Your task to perform on an android device: turn vacation reply on in the gmail app Image 0: 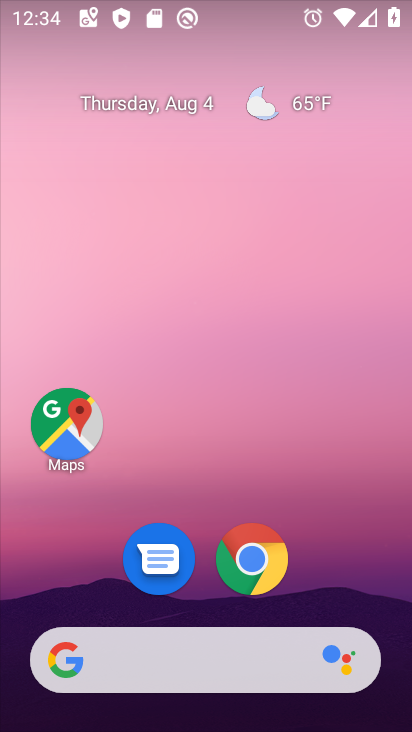
Step 0: press home button
Your task to perform on an android device: turn vacation reply on in the gmail app Image 1: 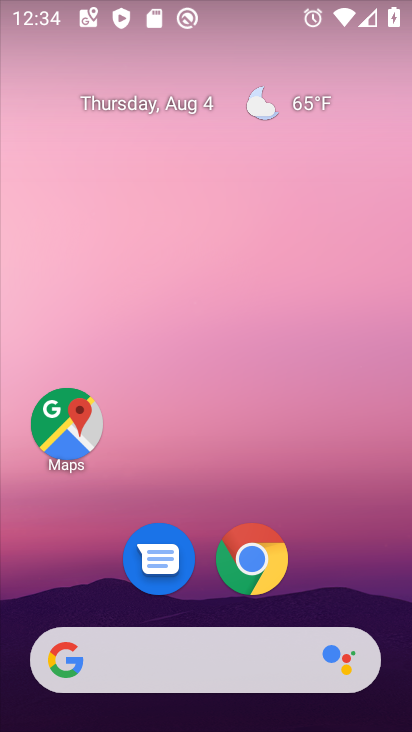
Step 1: drag from (186, 674) to (170, 145)
Your task to perform on an android device: turn vacation reply on in the gmail app Image 2: 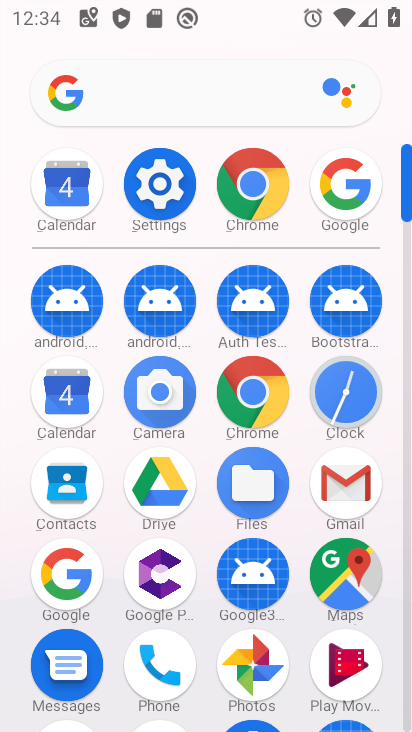
Step 2: drag from (205, 527) to (210, 312)
Your task to perform on an android device: turn vacation reply on in the gmail app Image 3: 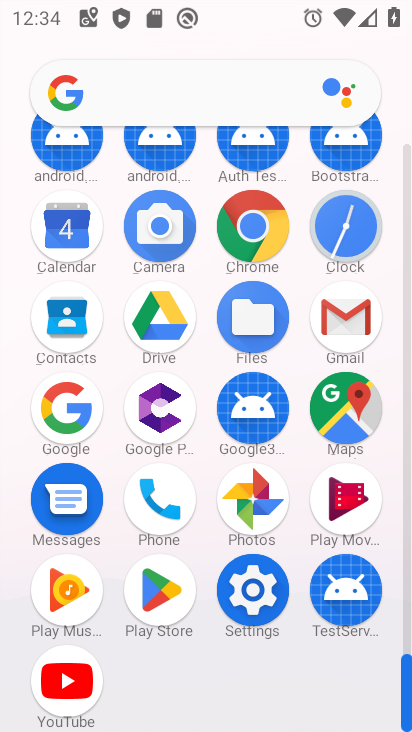
Step 3: click (346, 313)
Your task to perform on an android device: turn vacation reply on in the gmail app Image 4: 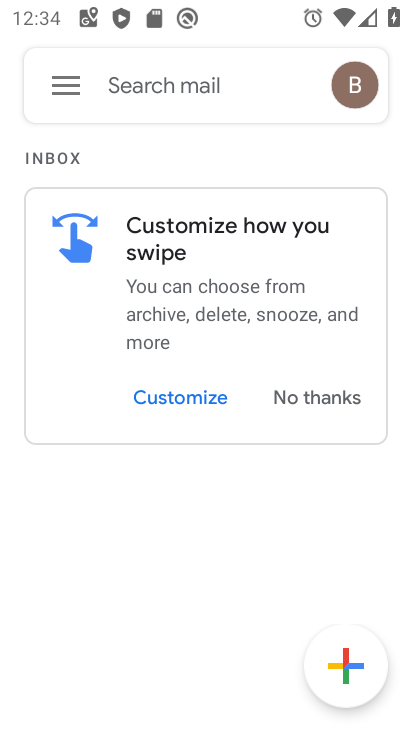
Step 4: click (69, 92)
Your task to perform on an android device: turn vacation reply on in the gmail app Image 5: 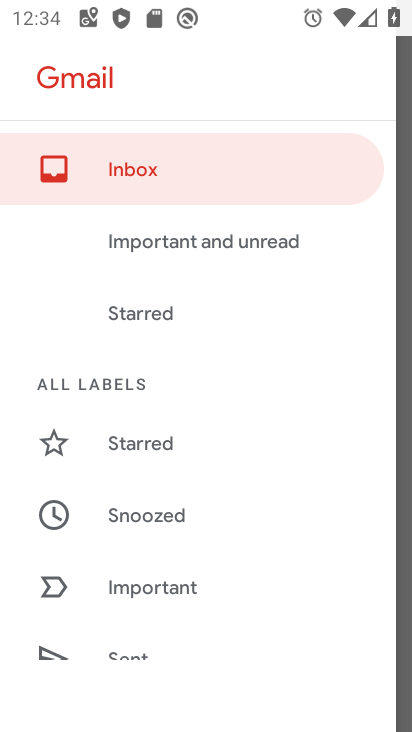
Step 5: drag from (143, 476) to (161, 361)
Your task to perform on an android device: turn vacation reply on in the gmail app Image 6: 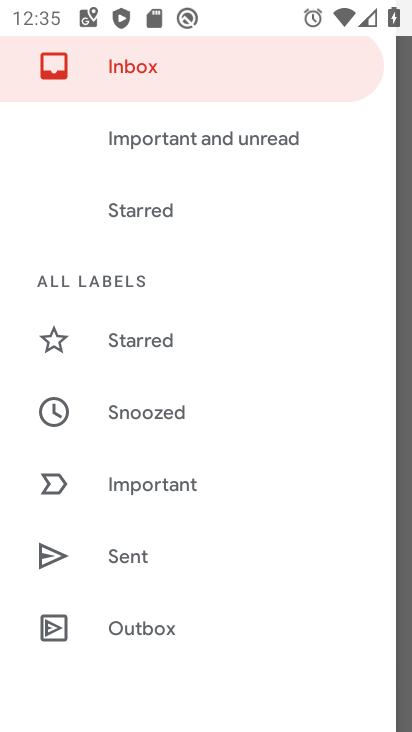
Step 6: drag from (191, 518) to (217, 424)
Your task to perform on an android device: turn vacation reply on in the gmail app Image 7: 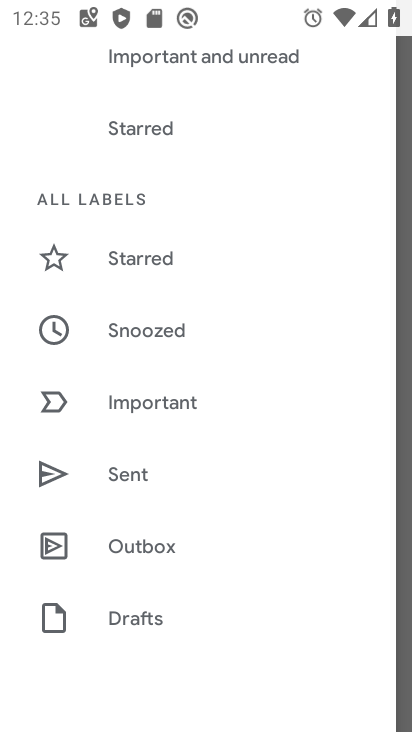
Step 7: drag from (138, 527) to (192, 425)
Your task to perform on an android device: turn vacation reply on in the gmail app Image 8: 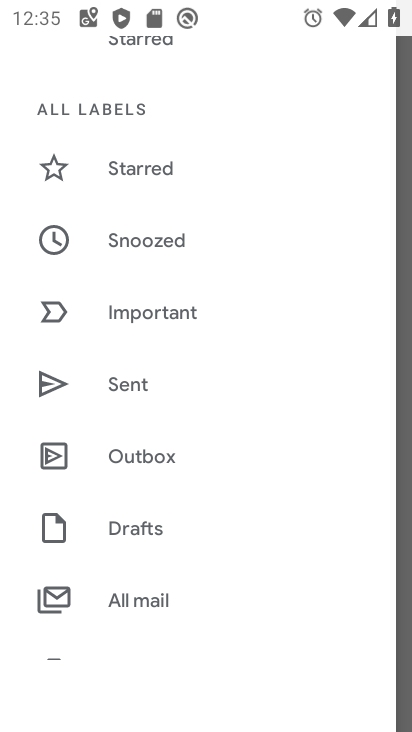
Step 8: drag from (129, 563) to (176, 424)
Your task to perform on an android device: turn vacation reply on in the gmail app Image 9: 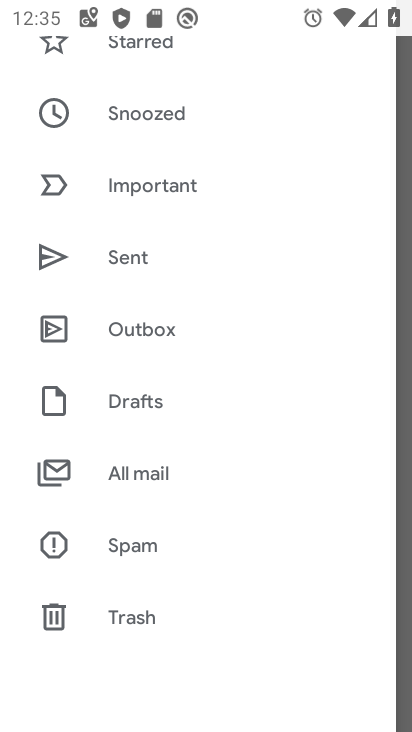
Step 9: drag from (133, 569) to (149, 483)
Your task to perform on an android device: turn vacation reply on in the gmail app Image 10: 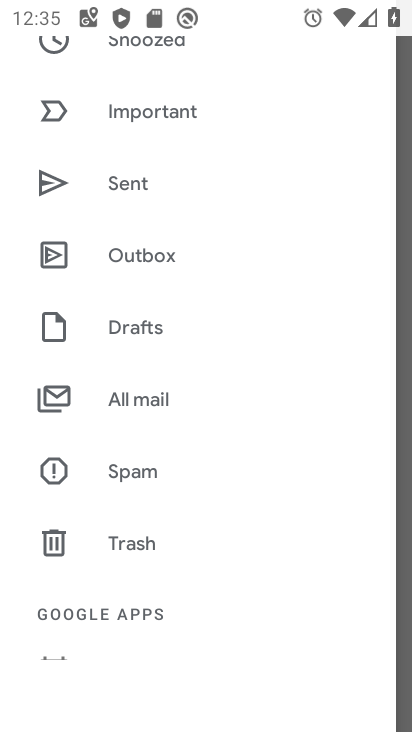
Step 10: drag from (116, 561) to (177, 413)
Your task to perform on an android device: turn vacation reply on in the gmail app Image 11: 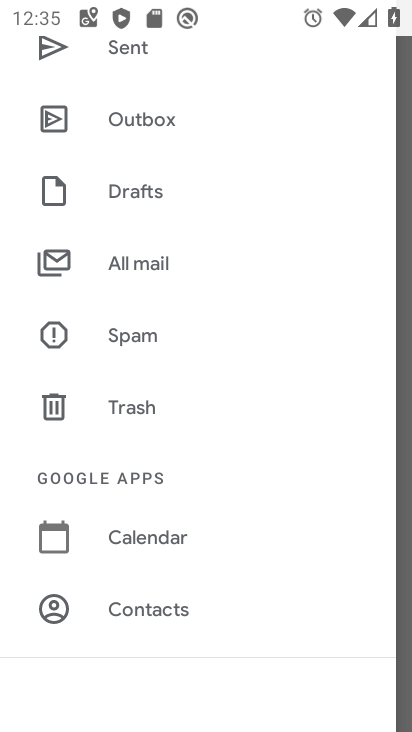
Step 11: drag from (158, 568) to (211, 442)
Your task to perform on an android device: turn vacation reply on in the gmail app Image 12: 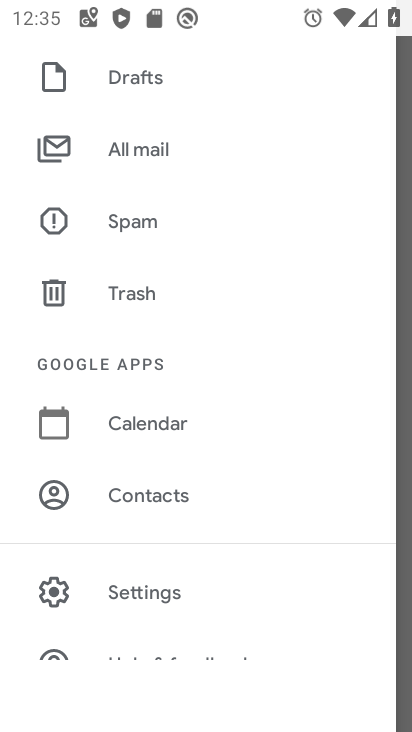
Step 12: click (170, 601)
Your task to perform on an android device: turn vacation reply on in the gmail app Image 13: 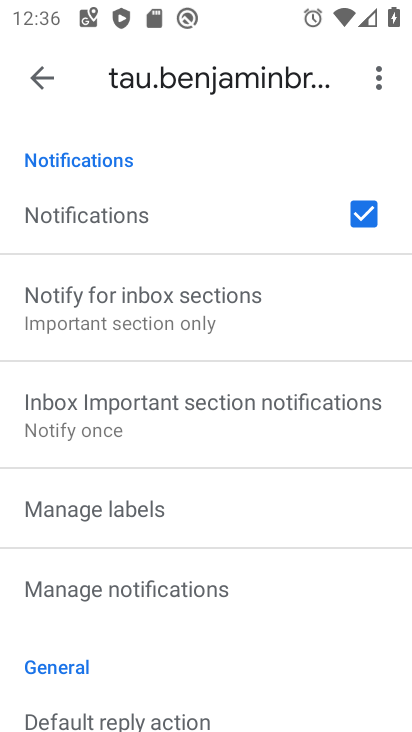
Step 13: drag from (184, 609) to (231, 429)
Your task to perform on an android device: turn vacation reply on in the gmail app Image 14: 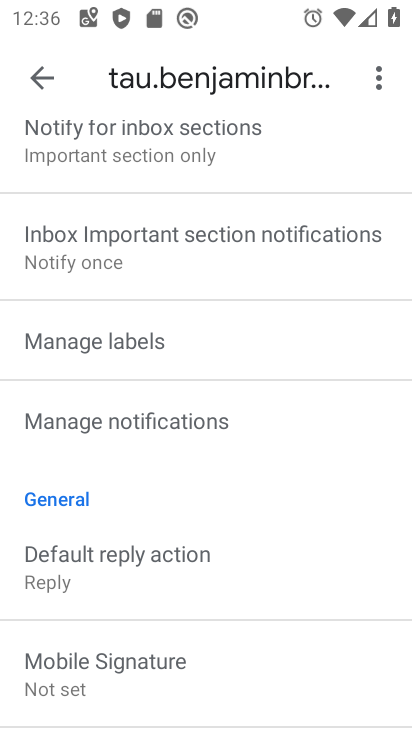
Step 14: drag from (216, 639) to (283, 497)
Your task to perform on an android device: turn vacation reply on in the gmail app Image 15: 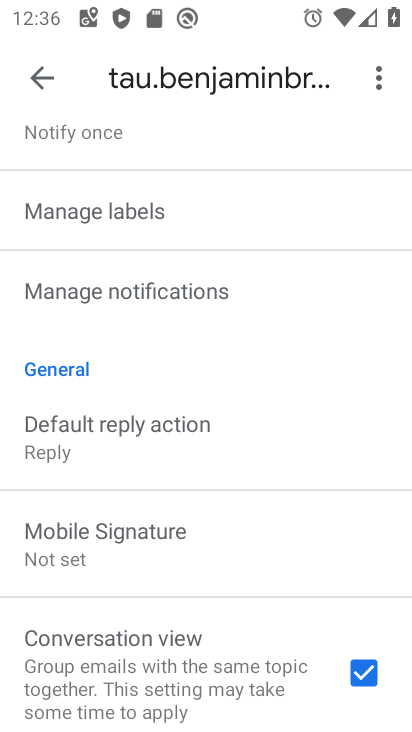
Step 15: drag from (219, 666) to (303, 461)
Your task to perform on an android device: turn vacation reply on in the gmail app Image 16: 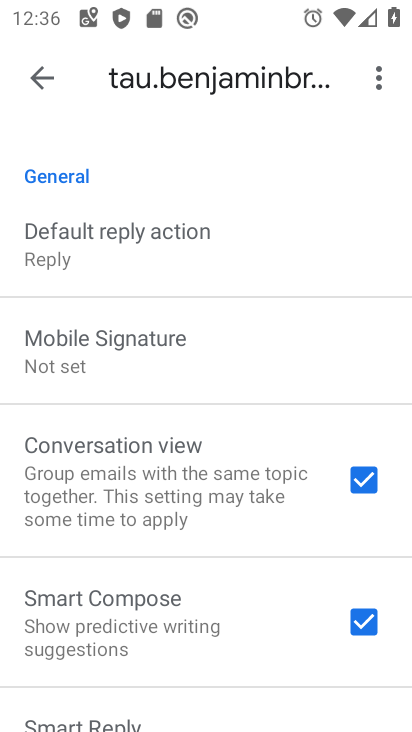
Step 16: drag from (186, 625) to (264, 497)
Your task to perform on an android device: turn vacation reply on in the gmail app Image 17: 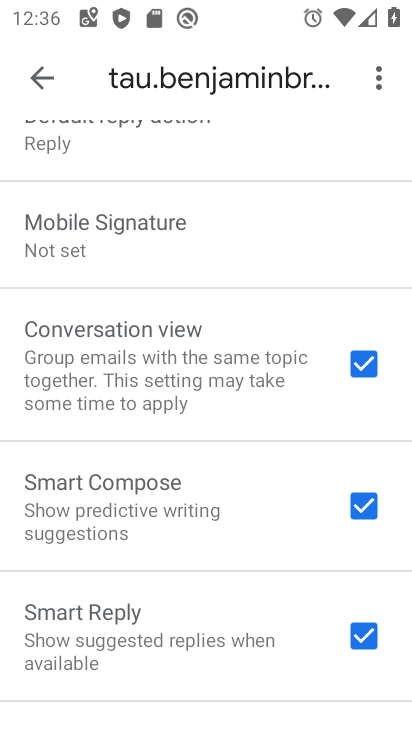
Step 17: drag from (134, 671) to (230, 516)
Your task to perform on an android device: turn vacation reply on in the gmail app Image 18: 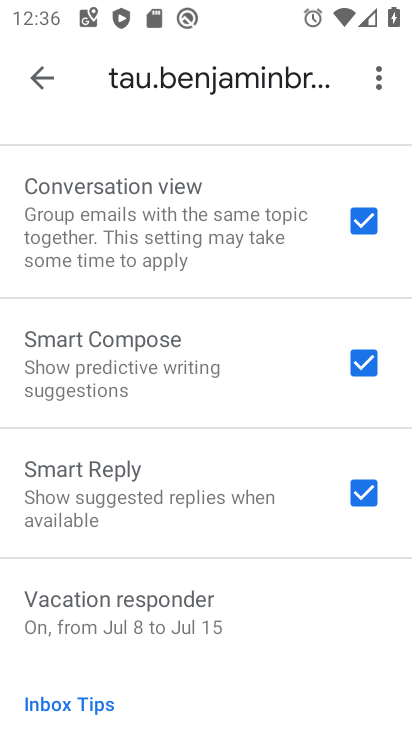
Step 18: click (117, 623)
Your task to perform on an android device: turn vacation reply on in the gmail app Image 19: 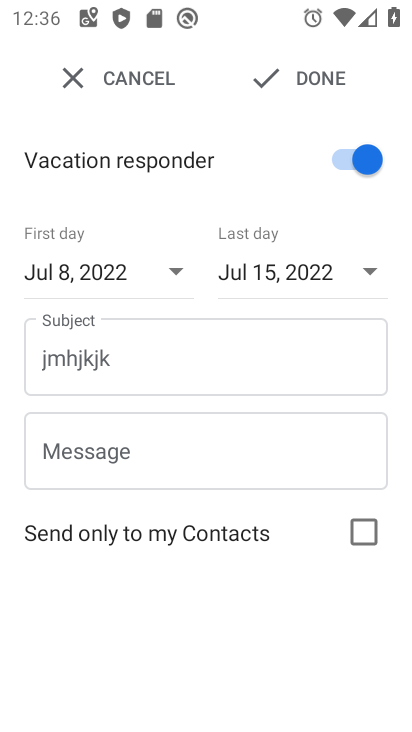
Step 19: task complete